Your task to perform on an android device: Open Google Image 0: 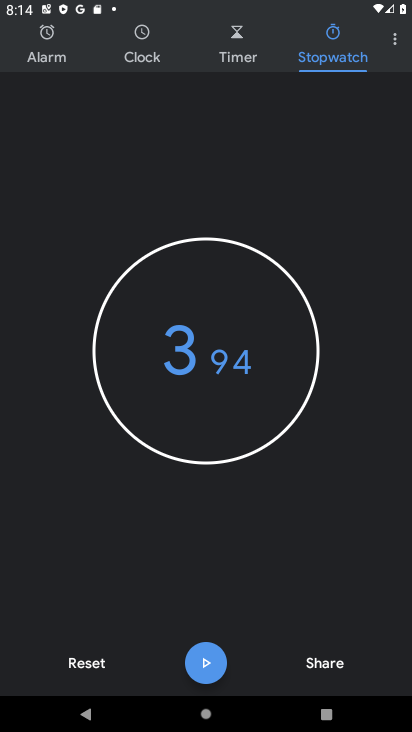
Step 0: press back button
Your task to perform on an android device: Open Google Image 1: 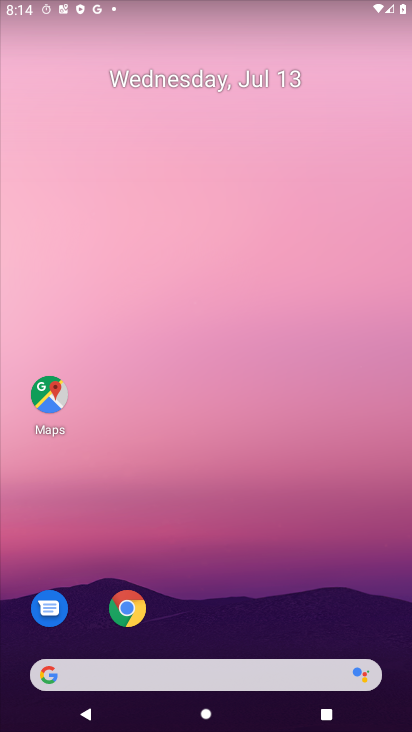
Step 1: drag from (259, 655) to (167, 53)
Your task to perform on an android device: Open Google Image 2: 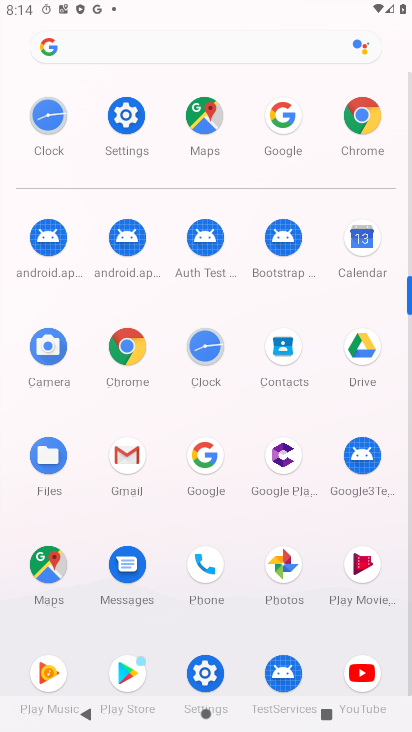
Step 2: click (274, 122)
Your task to perform on an android device: Open Google Image 3: 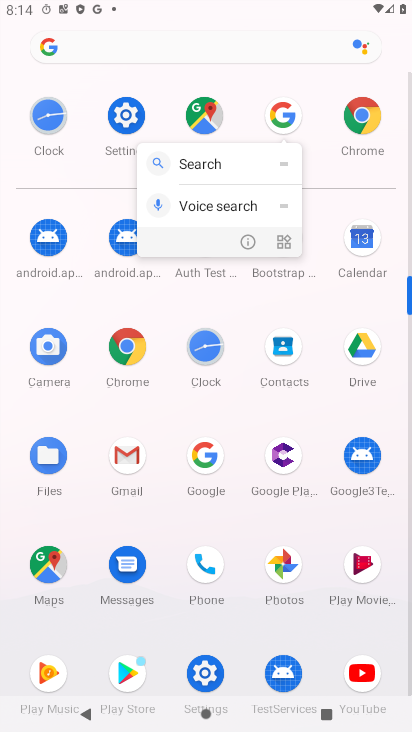
Step 3: click (297, 131)
Your task to perform on an android device: Open Google Image 4: 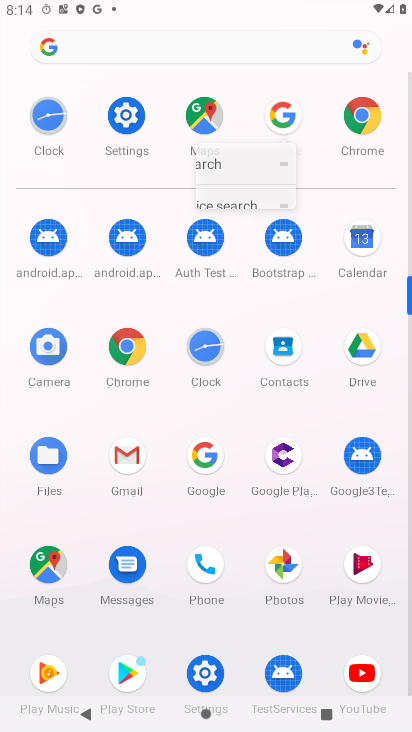
Step 4: click (289, 119)
Your task to perform on an android device: Open Google Image 5: 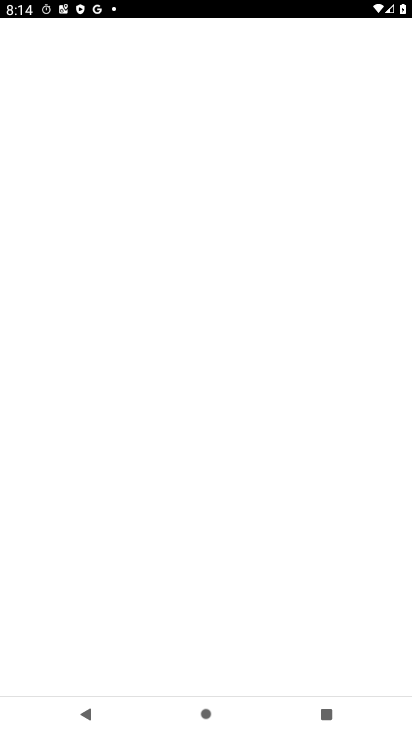
Step 5: click (288, 110)
Your task to perform on an android device: Open Google Image 6: 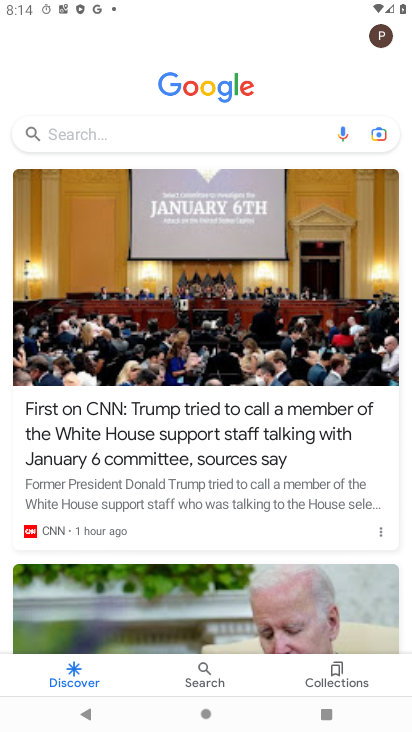
Step 6: task complete